Your task to perform on an android device: turn on sleep mode Image 0: 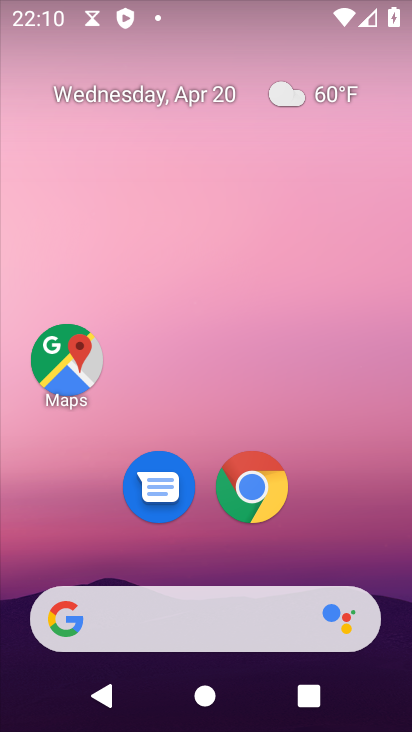
Step 0: drag from (113, 590) to (282, 280)
Your task to perform on an android device: turn on sleep mode Image 1: 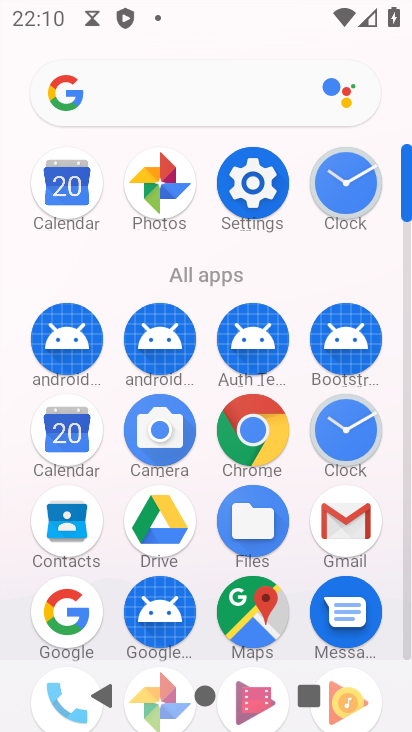
Step 1: click (261, 189)
Your task to perform on an android device: turn on sleep mode Image 2: 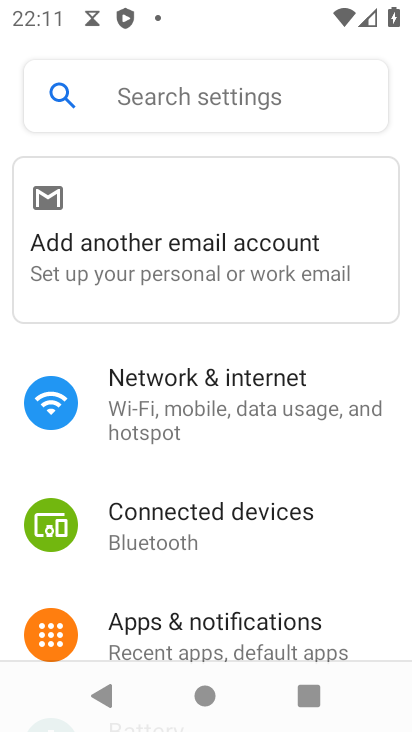
Step 2: click (243, 597)
Your task to perform on an android device: turn on sleep mode Image 3: 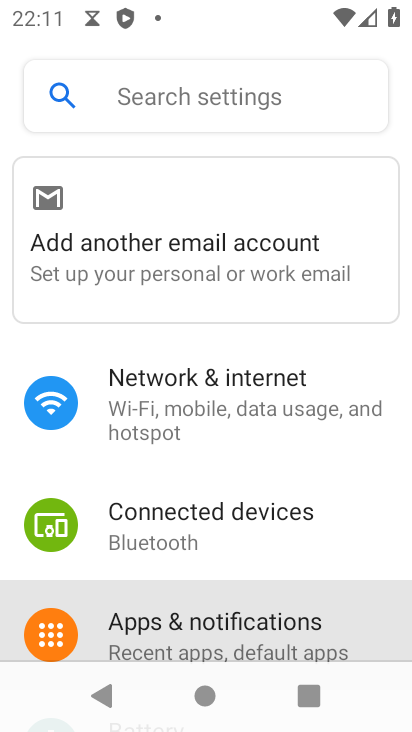
Step 3: task complete